Your task to perform on an android device: Do I have any events today? Image 0: 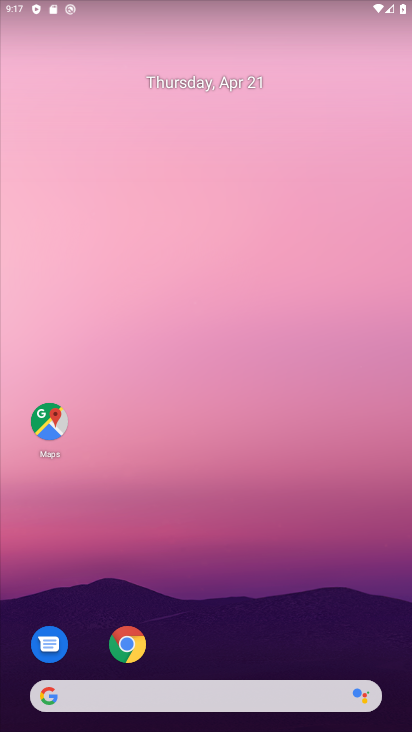
Step 0: drag from (319, 609) to (153, 193)
Your task to perform on an android device: Do I have any events today? Image 1: 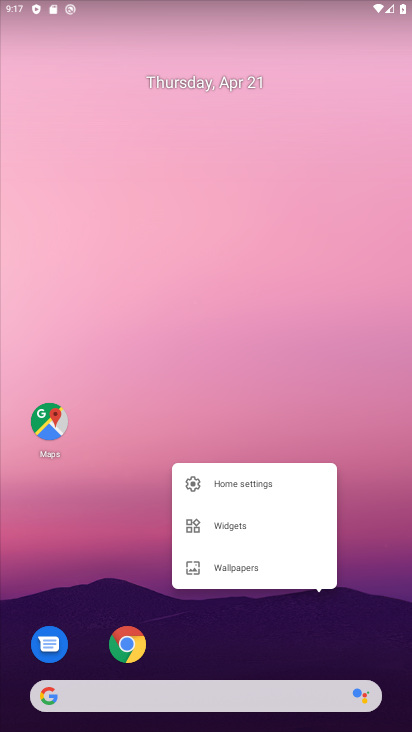
Step 1: click (407, 486)
Your task to perform on an android device: Do I have any events today? Image 2: 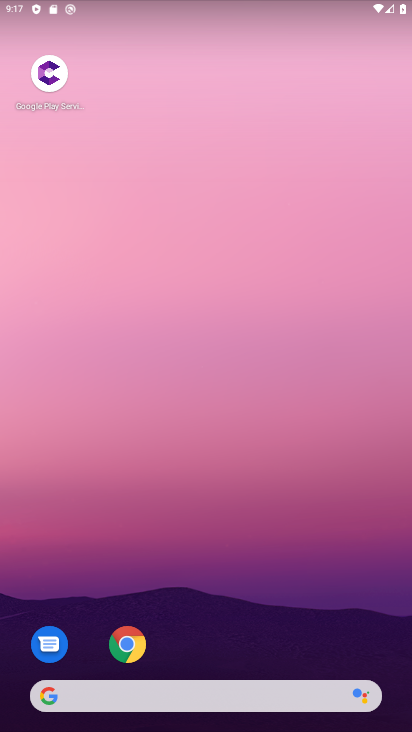
Step 2: drag from (232, 627) to (247, 26)
Your task to perform on an android device: Do I have any events today? Image 3: 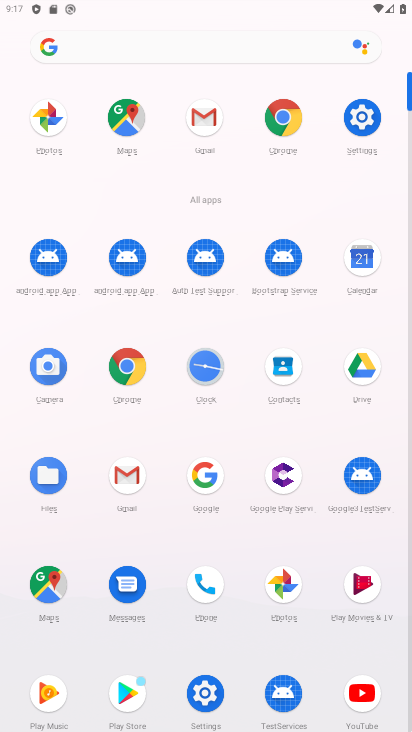
Step 3: click (359, 260)
Your task to perform on an android device: Do I have any events today? Image 4: 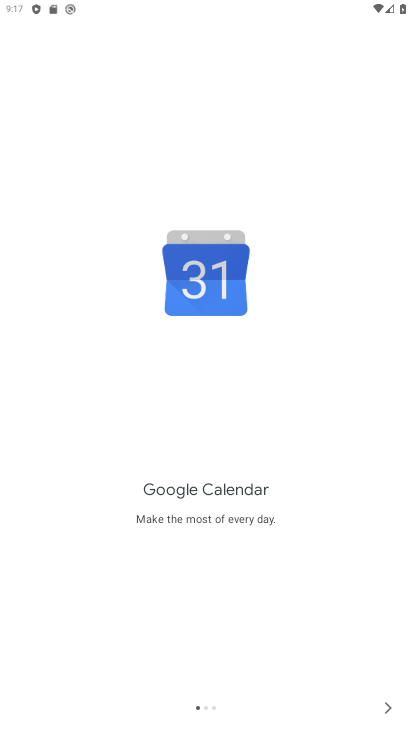
Step 4: click (388, 713)
Your task to perform on an android device: Do I have any events today? Image 5: 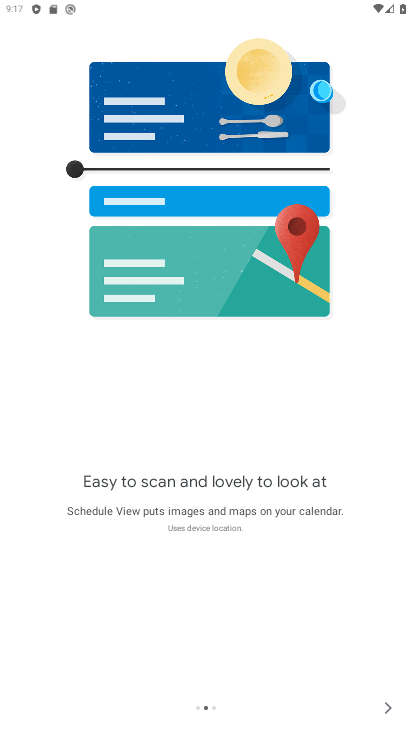
Step 5: click (388, 713)
Your task to perform on an android device: Do I have any events today? Image 6: 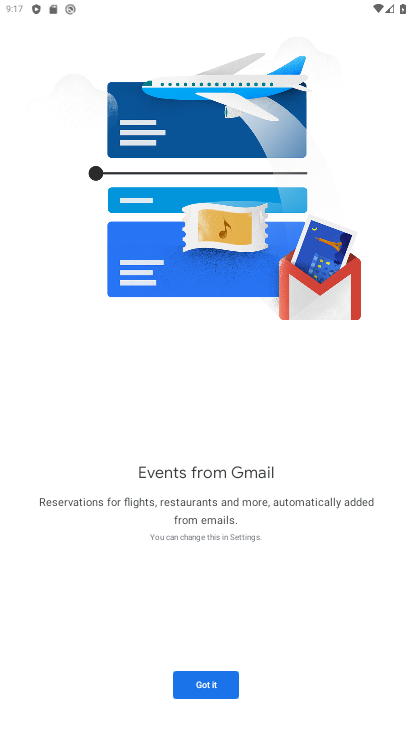
Step 6: click (191, 686)
Your task to perform on an android device: Do I have any events today? Image 7: 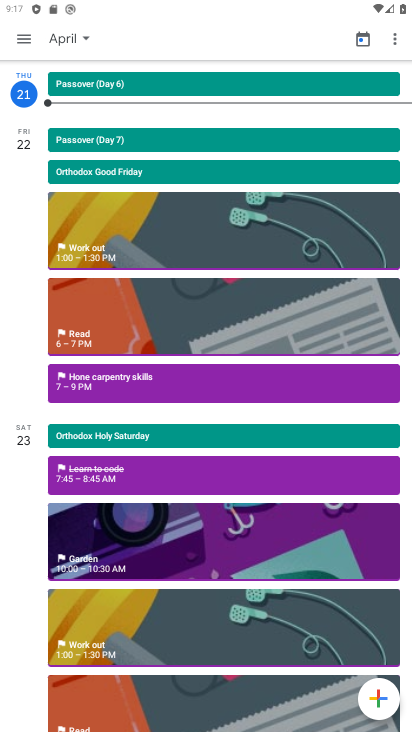
Step 7: click (23, 41)
Your task to perform on an android device: Do I have any events today? Image 8: 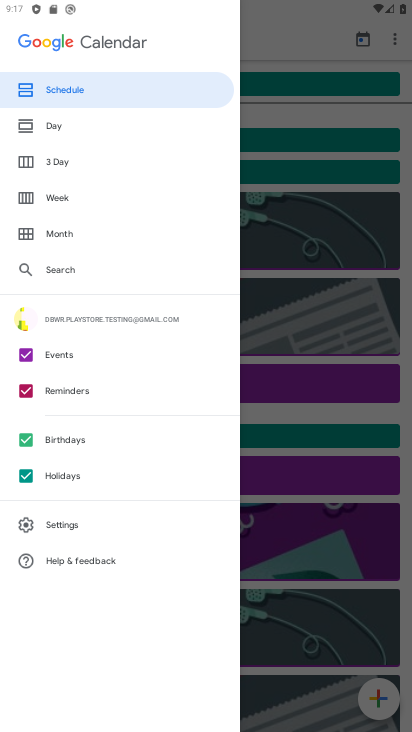
Step 8: click (19, 479)
Your task to perform on an android device: Do I have any events today? Image 9: 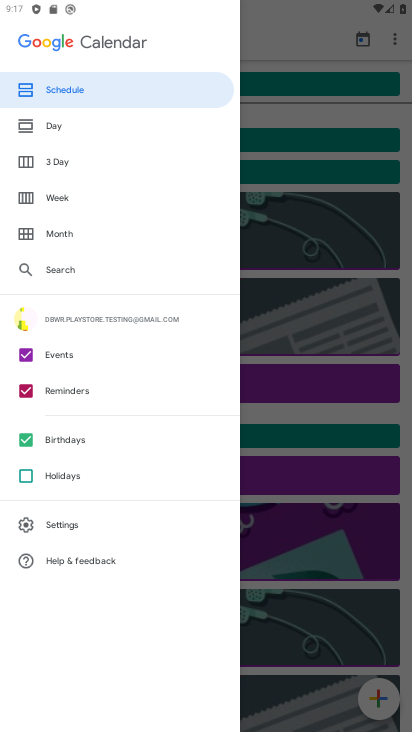
Step 9: click (21, 442)
Your task to perform on an android device: Do I have any events today? Image 10: 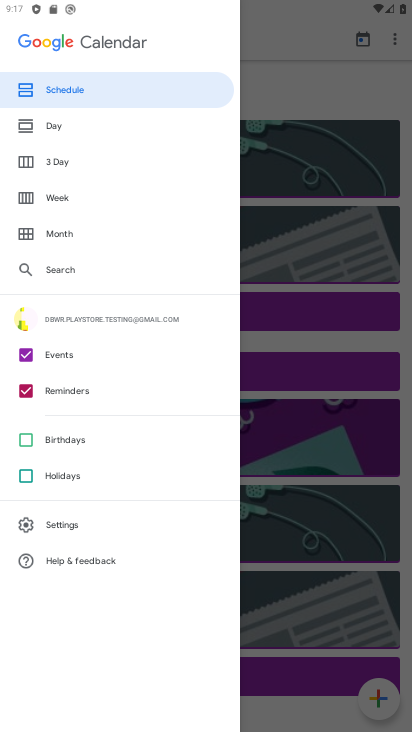
Step 10: click (22, 393)
Your task to perform on an android device: Do I have any events today? Image 11: 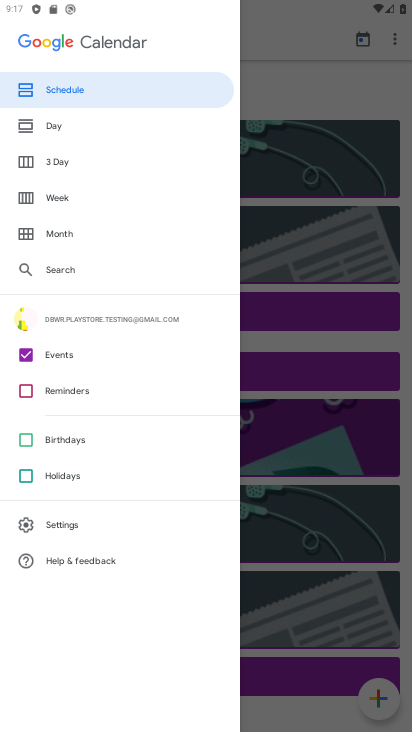
Step 11: click (79, 121)
Your task to perform on an android device: Do I have any events today? Image 12: 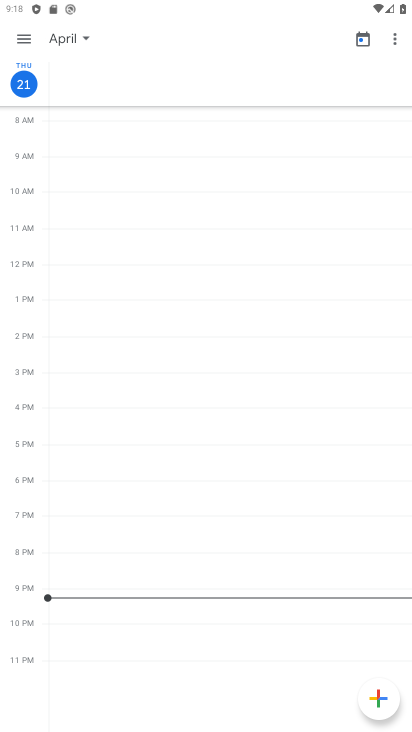
Step 12: click (81, 38)
Your task to perform on an android device: Do I have any events today? Image 13: 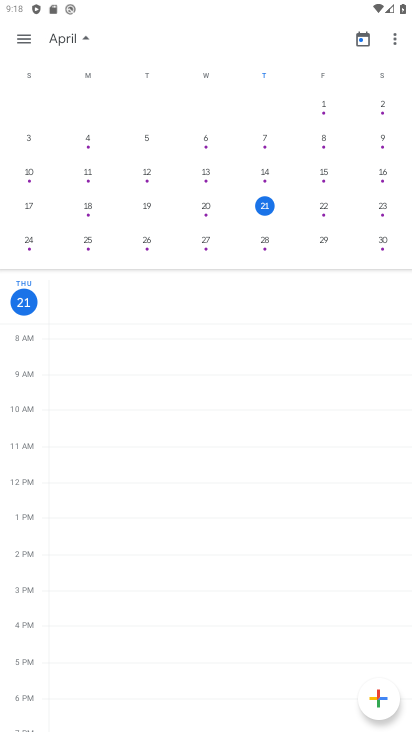
Step 13: click (326, 207)
Your task to perform on an android device: Do I have any events today? Image 14: 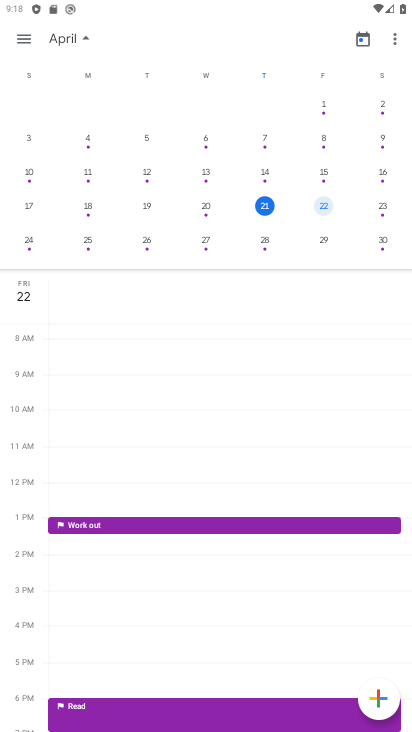
Step 14: click (80, 40)
Your task to perform on an android device: Do I have any events today? Image 15: 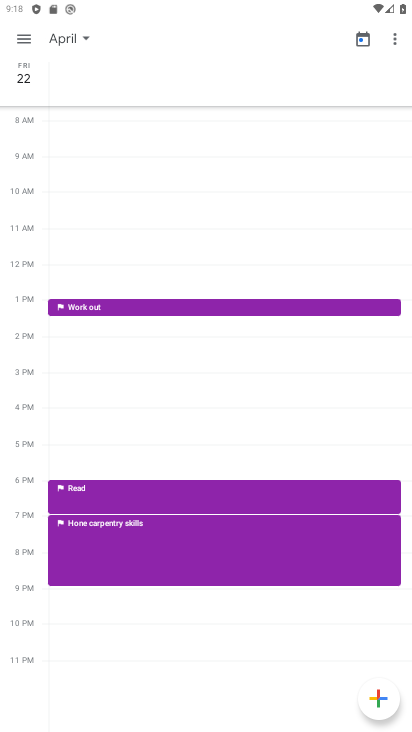
Step 15: task complete